Your task to perform on an android device: turn on bluetooth scan Image 0: 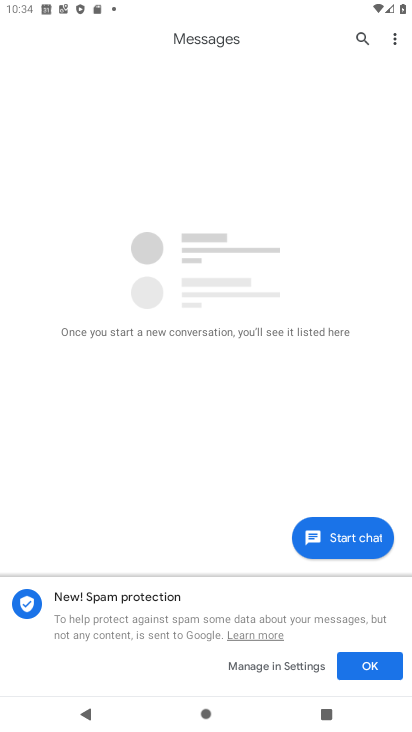
Step 0: press home button
Your task to perform on an android device: turn on bluetooth scan Image 1: 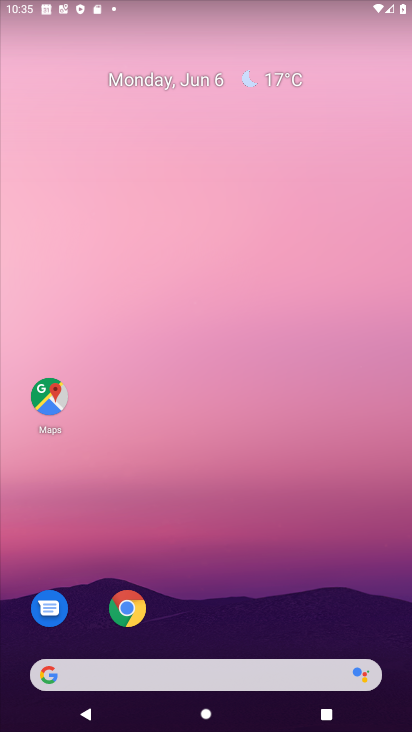
Step 1: drag from (215, 621) to (150, 273)
Your task to perform on an android device: turn on bluetooth scan Image 2: 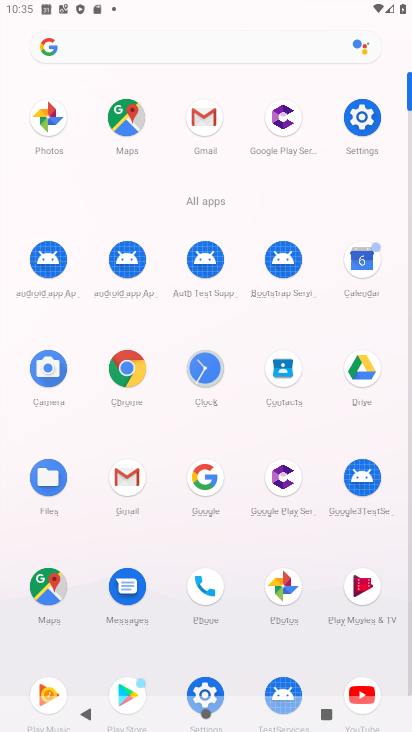
Step 2: click (367, 130)
Your task to perform on an android device: turn on bluetooth scan Image 3: 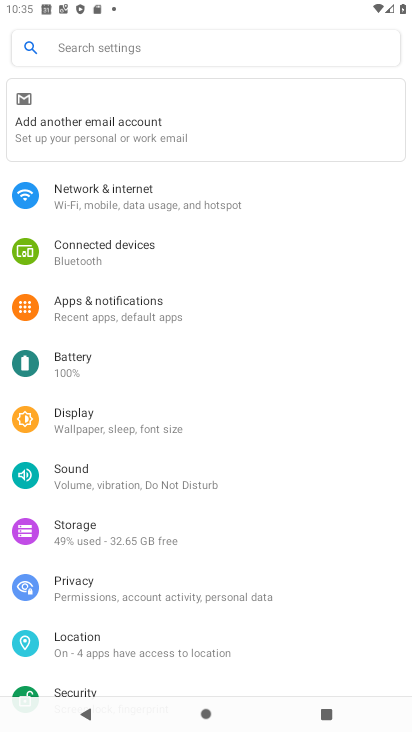
Step 3: click (159, 642)
Your task to perform on an android device: turn on bluetooth scan Image 4: 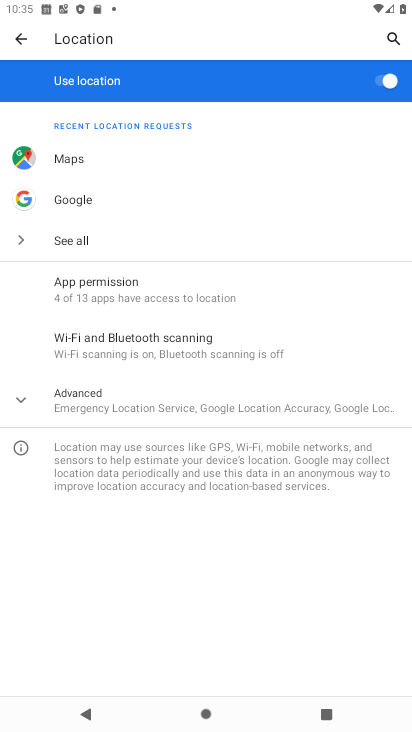
Step 4: click (166, 351)
Your task to perform on an android device: turn on bluetooth scan Image 5: 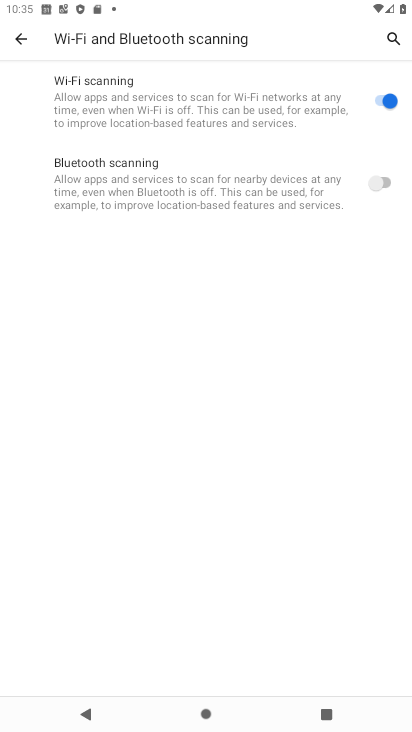
Step 5: click (380, 189)
Your task to perform on an android device: turn on bluetooth scan Image 6: 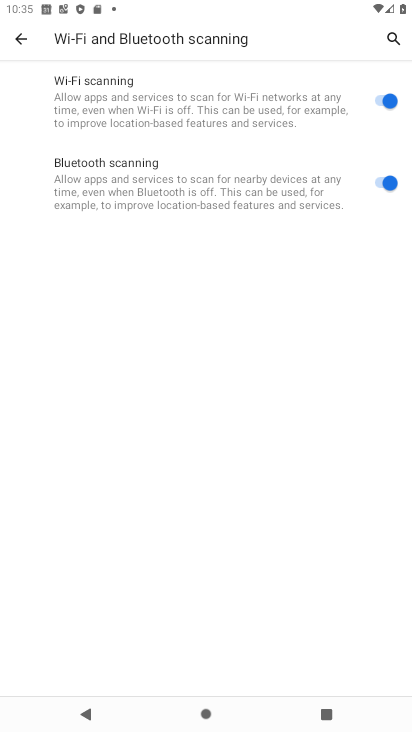
Step 6: task complete